Your task to perform on an android device: How much does a 2 bedroom apartment rent for in Washington DC? Image 0: 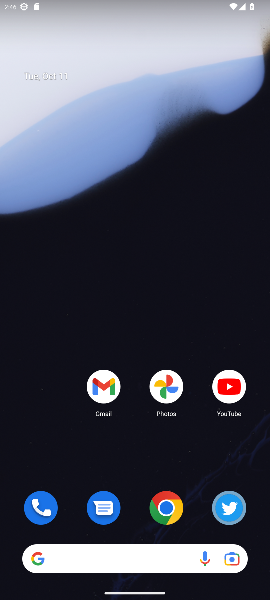
Step 0: click (170, 505)
Your task to perform on an android device: How much does a 2 bedroom apartment rent for in Washington DC? Image 1: 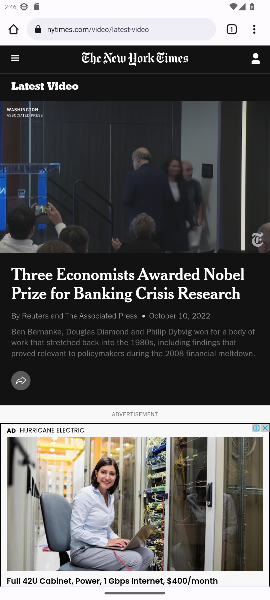
Step 1: click (121, 27)
Your task to perform on an android device: How much does a 2 bedroom apartment rent for in Washington DC? Image 2: 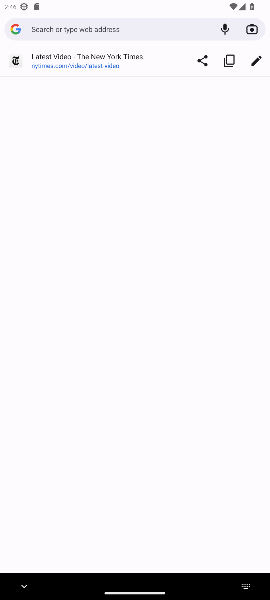
Step 2: type "latest video from the New York Times"
Your task to perform on an android device: How much does a 2 bedroom apartment rent for in Washington DC? Image 3: 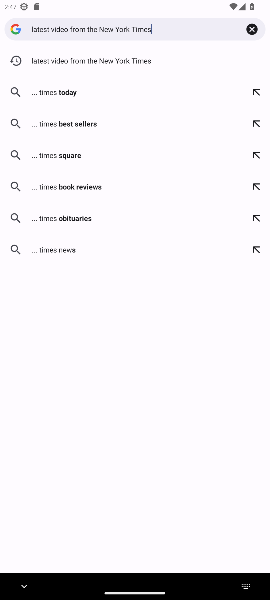
Step 3: press enter
Your task to perform on an android device: How much does a 2 bedroom apartment rent for in Washington DC? Image 4: 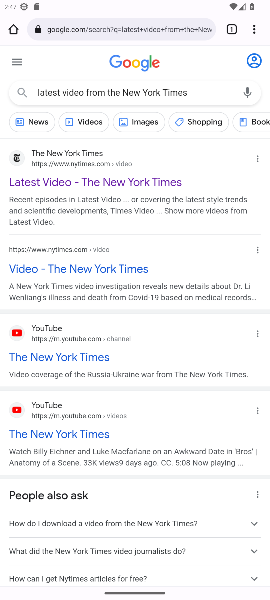
Step 4: click (165, 89)
Your task to perform on an android device: How much does a 2 bedroom apartment rent for in Washington DC? Image 5: 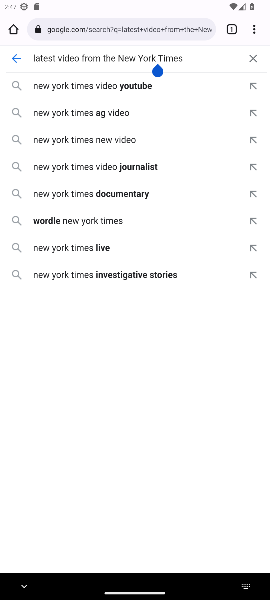
Step 5: click (253, 60)
Your task to perform on an android device: How much does a 2 bedroom apartment rent for in Washington DC? Image 6: 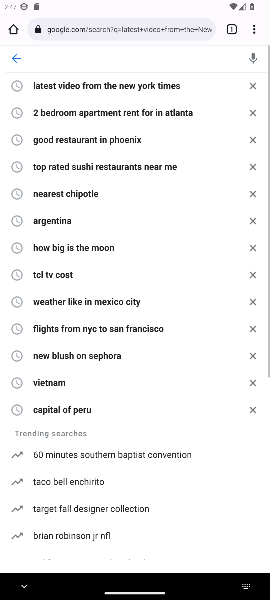
Step 6: type "2 bedroom apartment rent for in Washington DC"
Your task to perform on an android device: How much does a 2 bedroom apartment rent for in Washington DC? Image 7: 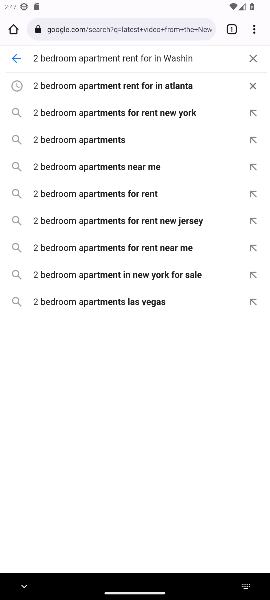
Step 7: type ""
Your task to perform on an android device: How much does a 2 bedroom apartment rent for in Washington DC? Image 8: 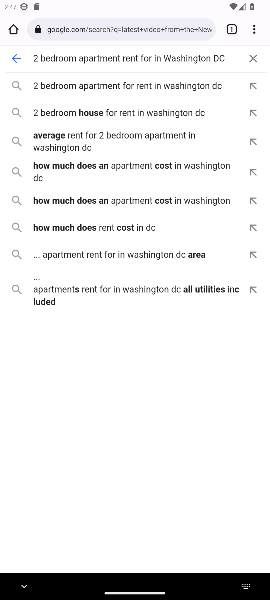
Step 8: press enter
Your task to perform on an android device: How much does a 2 bedroom apartment rent for in Washington DC? Image 9: 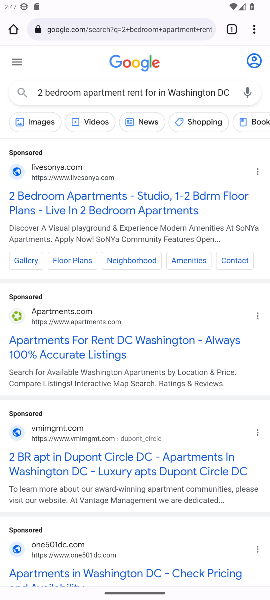
Step 9: drag from (130, 409) to (128, 239)
Your task to perform on an android device: How much does a 2 bedroom apartment rent for in Washington DC? Image 10: 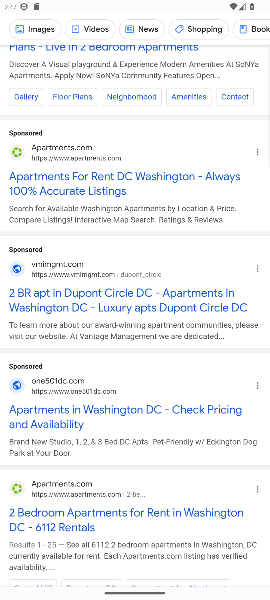
Step 10: click (62, 509)
Your task to perform on an android device: How much does a 2 bedroom apartment rent for in Washington DC? Image 11: 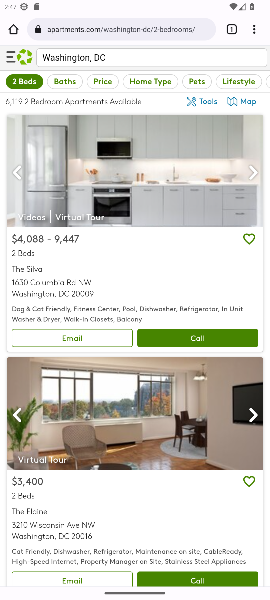
Step 11: task complete